Your task to perform on an android device: Do I have any events tomorrow? Image 0: 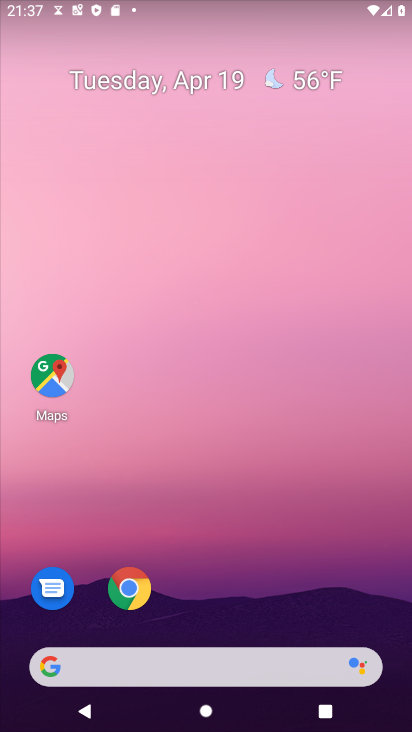
Step 0: drag from (183, 605) to (265, 8)
Your task to perform on an android device: Do I have any events tomorrow? Image 1: 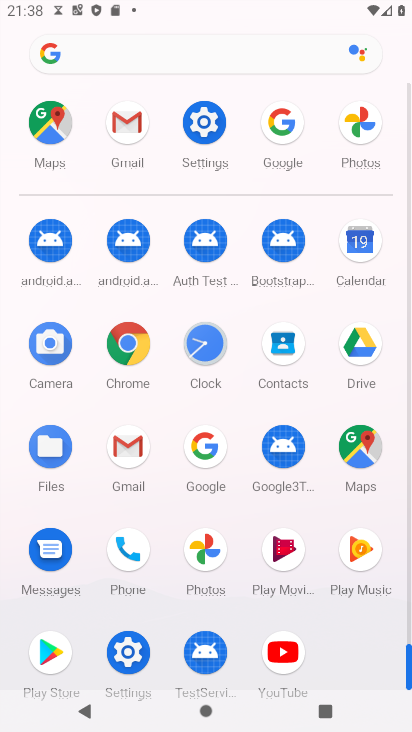
Step 1: click (360, 243)
Your task to perform on an android device: Do I have any events tomorrow? Image 2: 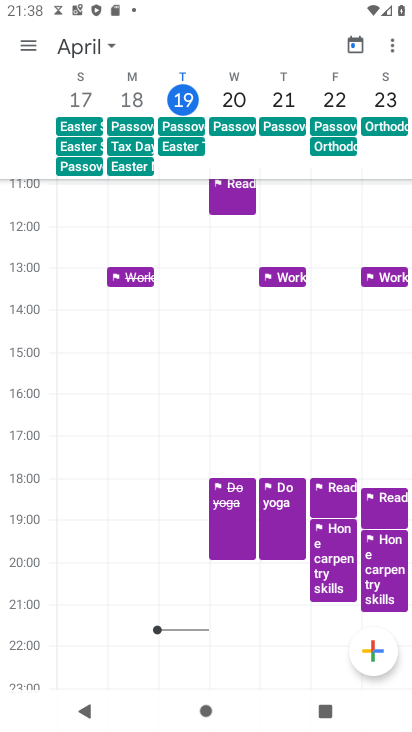
Step 2: click (358, 50)
Your task to perform on an android device: Do I have any events tomorrow? Image 3: 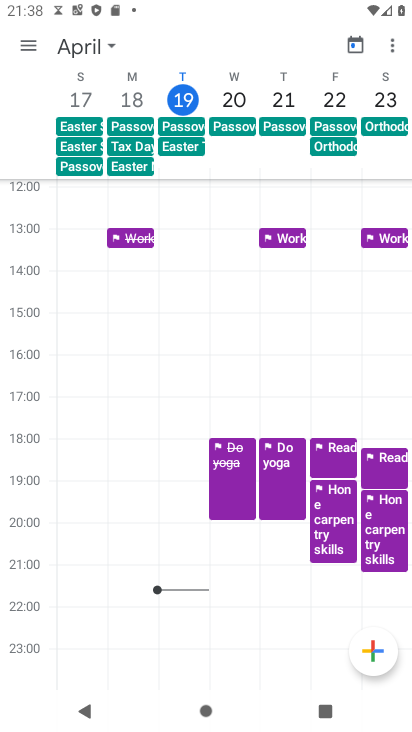
Step 3: click (107, 45)
Your task to perform on an android device: Do I have any events tomorrow? Image 4: 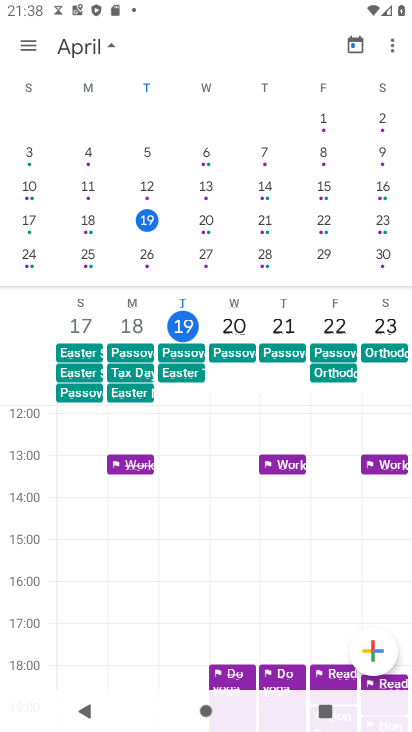
Step 4: click (206, 225)
Your task to perform on an android device: Do I have any events tomorrow? Image 5: 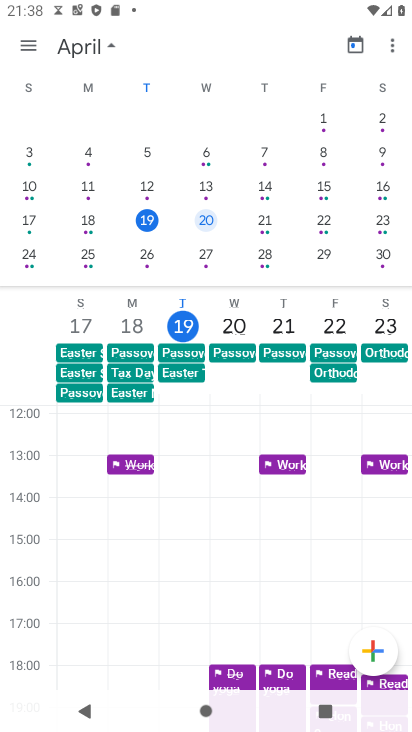
Step 5: task complete